Your task to perform on an android device: turn on translation in the chrome app Image 0: 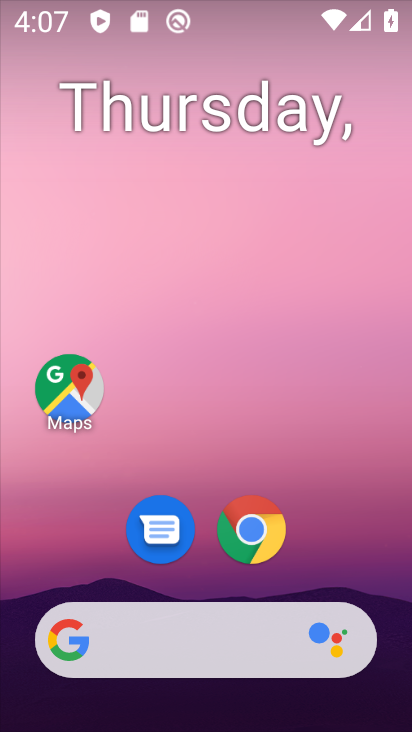
Step 0: click (257, 537)
Your task to perform on an android device: turn on translation in the chrome app Image 1: 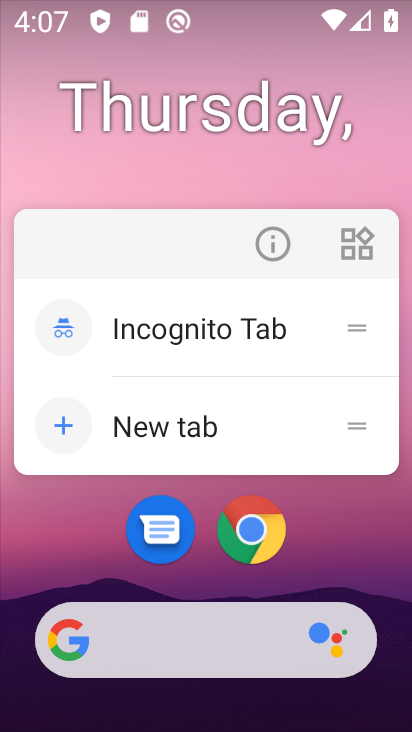
Step 1: click (256, 537)
Your task to perform on an android device: turn on translation in the chrome app Image 2: 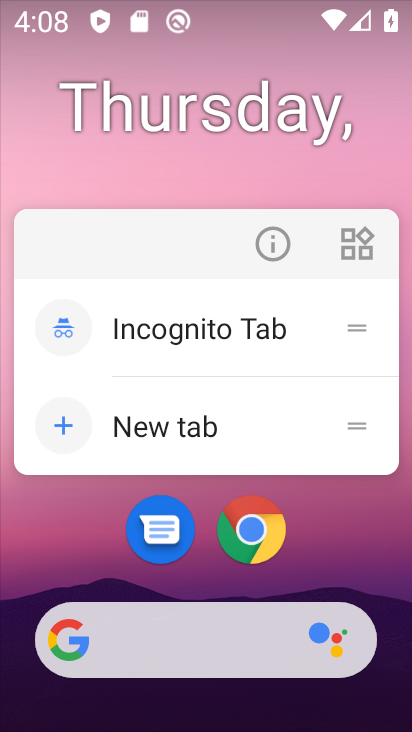
Step 2: click (249, 527)
Your task to perform on an android device: turn on translation in the chrome app Image 3: 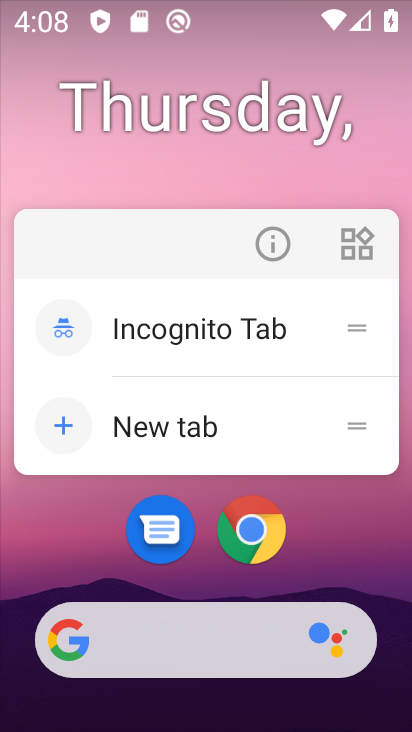
Step 3: click (249, 527)
Your task to perform on an android device: turn on translation in the chrome app Image 4: 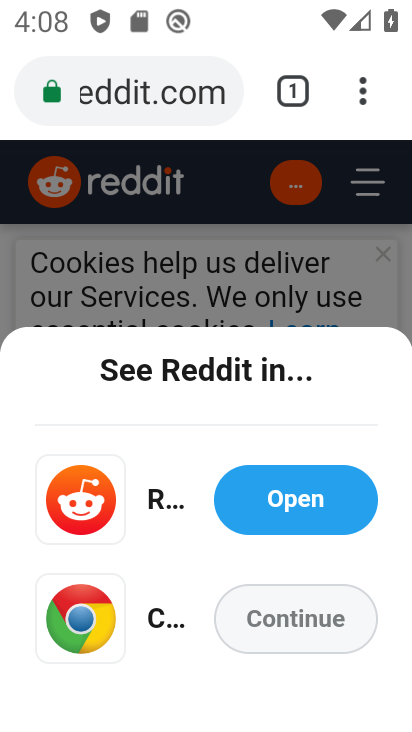
Step 4: click (364, 91)
Your task to perform on an android device: turn on translation in the chrome app Image 5: 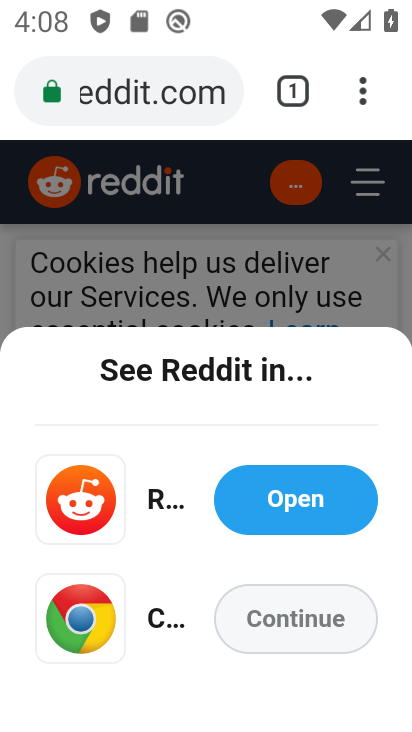
Step 5: click (364, 91)
Your task to perform on an android device: turn on translation in the chrome app Image 6: 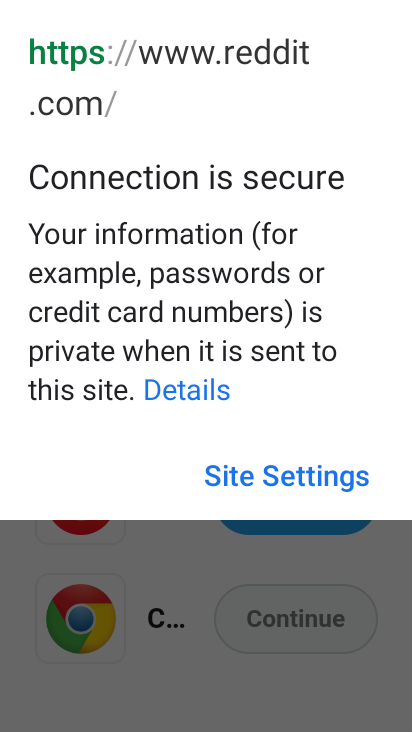
Step 6: click (280, 462)
Your task to perform on an android device: turn on translation in the chrome app Image 7: 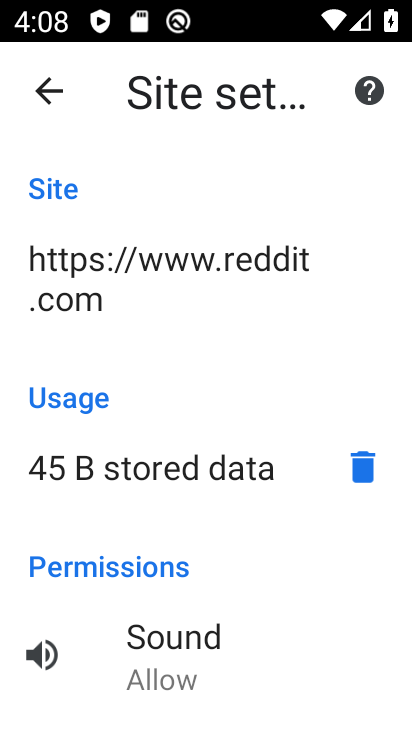
Step 7: click (364, 471)
Your task to perform on an android device: turn on translation in the chrome app Image 8: 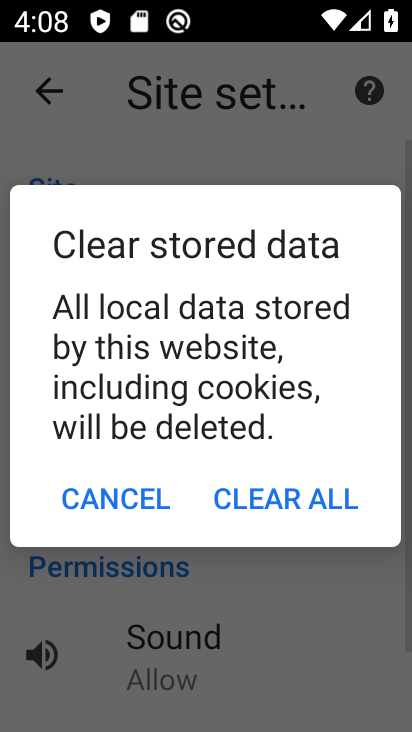
Step 8: click (318, 500)
Your task to perform on an android device: turn on translation in the chrome app Image 9: 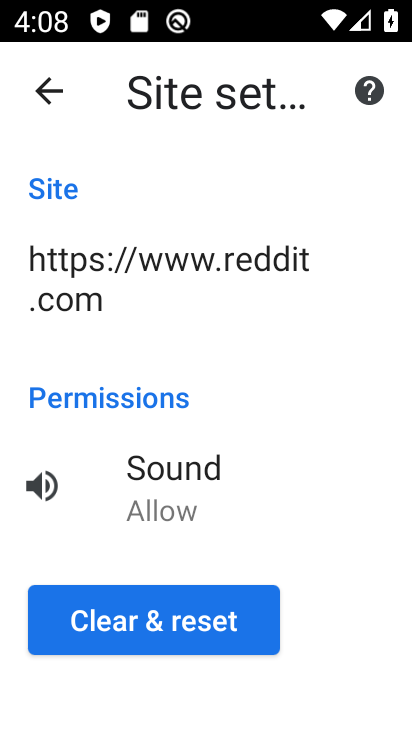
Step 9: click (198, 613)
Your task to perform on an android device: turn on translation in the chrome app Image 10: 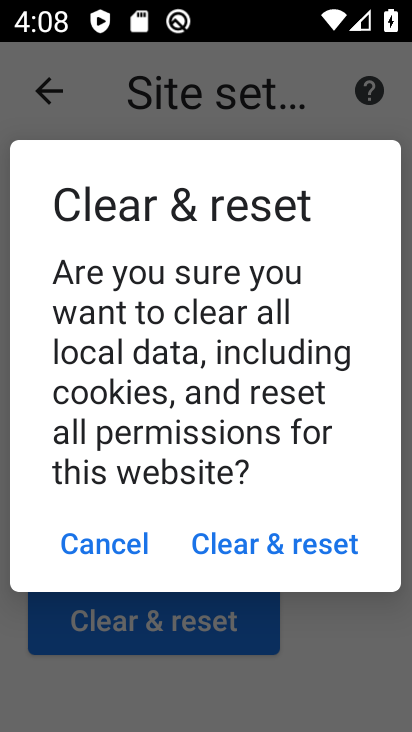
Step 10: click (198, 613)
Your task to perform on an android device: turn on translation in the chrome app Image 11: 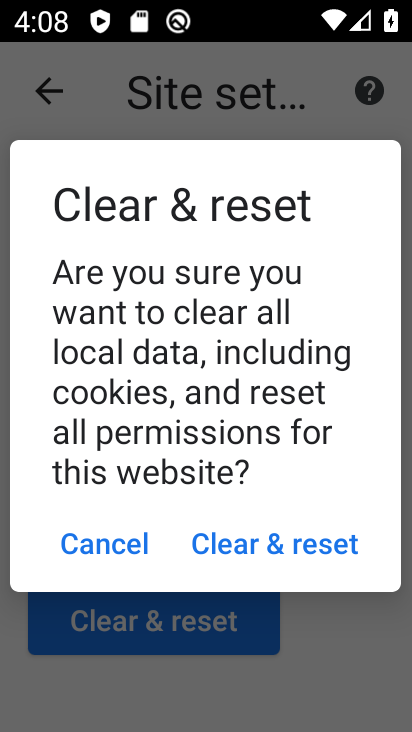
Step 11: click (274, 537)
Your task to perform on an android device: turn on translation in the chrome app Image 12: 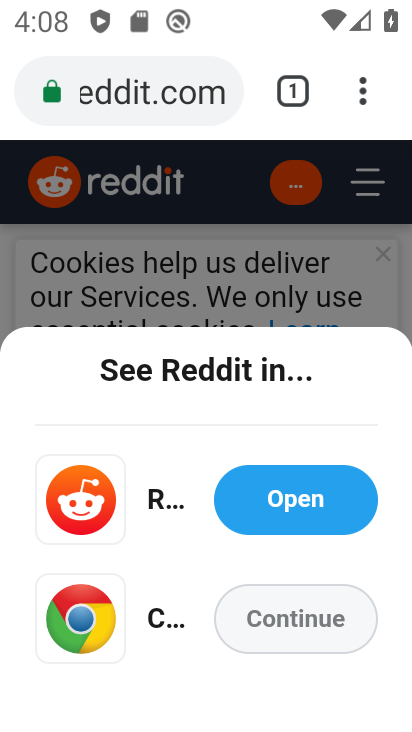
Step 12: click (363, 88)
Your task to perform on an android device: turn on translation in the chrome app Image 13: 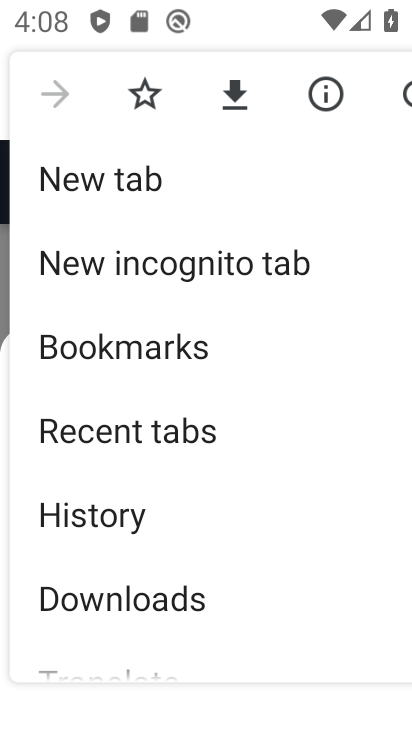
Step 13: drag from (144, 586) to (163, 292)
Your task to perform on an android device: turn on translation in the chrome app Image 14: 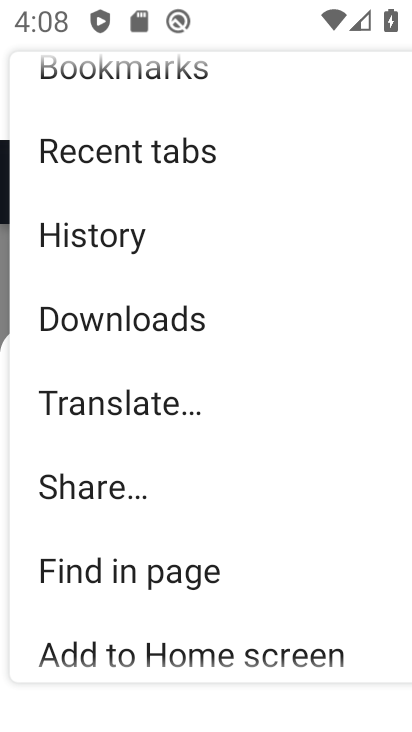
Step 14: drag from (109, 647) to (162, 314)
Your task to perform on an android device: turn on translation in the chrome app Image 15: 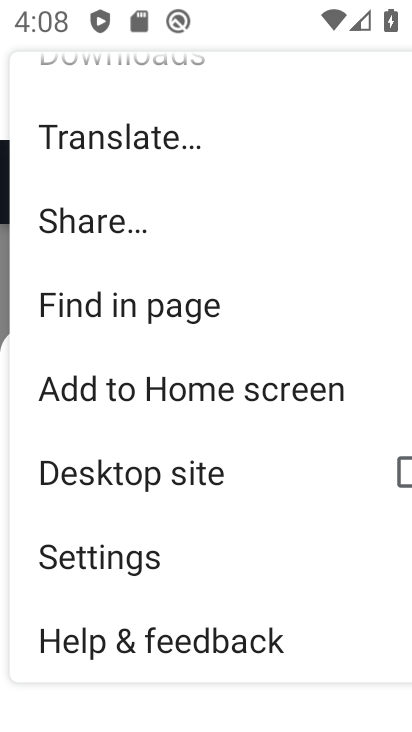
Step 15: click (116, 550)
Your task to perform on an android device: turn on translation in the chrome app Image 16: 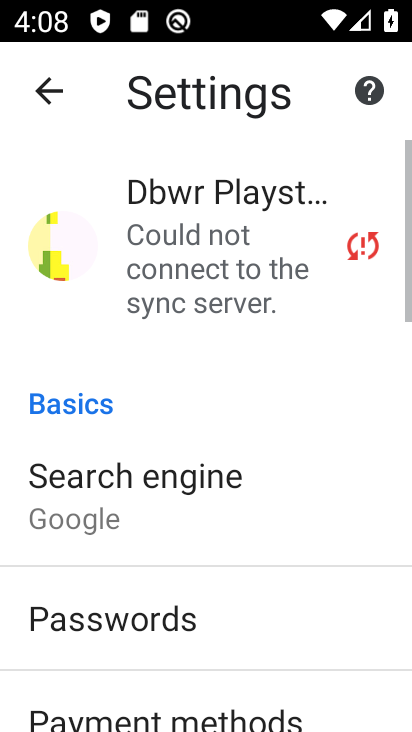
Step 16: drag from (122, 716) to (189, 362)
Your task to perform on an android device: turn on translation in the chrome app Image 17: 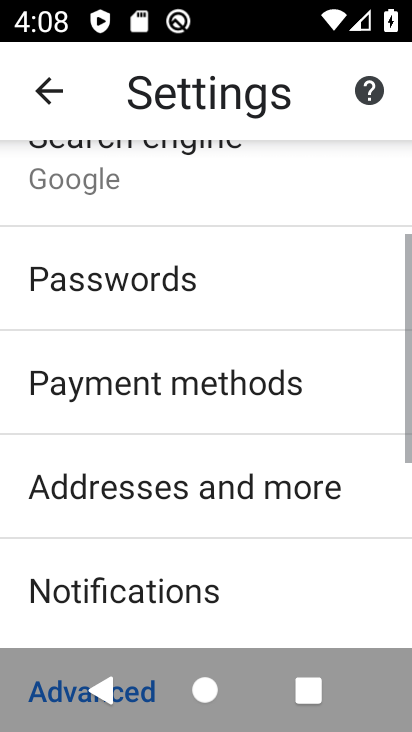
Step 17: drag from (201, 630) to (224, 306)
Your task to perform on an android device: turn on translation in the chrome app Image 18: 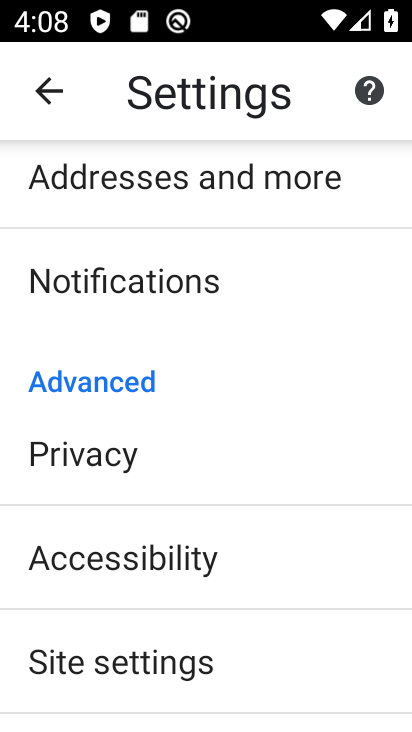
Step 18: drag from (106, 672) to (120, 433)
Your task to perform on an android device: turn on translation in the chrome app Image 19: 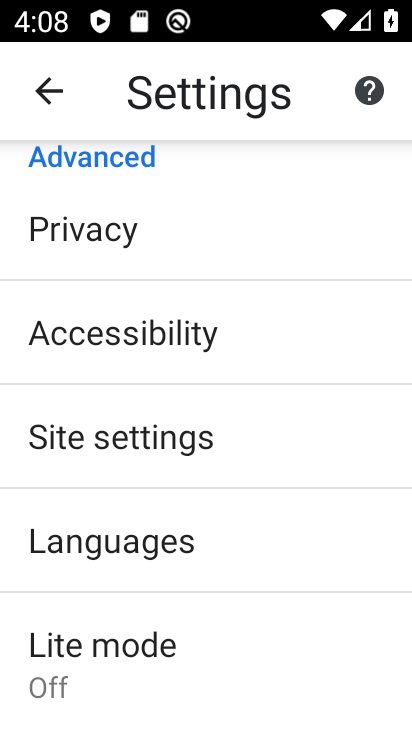
Step 19: click (111, 551)
Your task to perform on an android device: turn on translation in the chrome app Image 20: 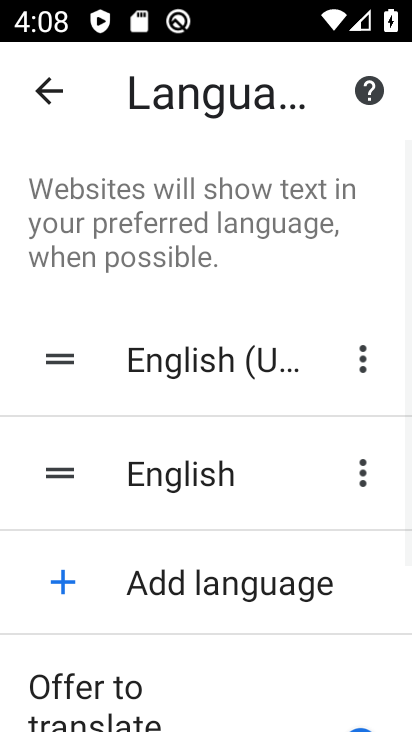
Step 20: task complete